Your task to perform on an android device: Go to Wikipedia Image 0: 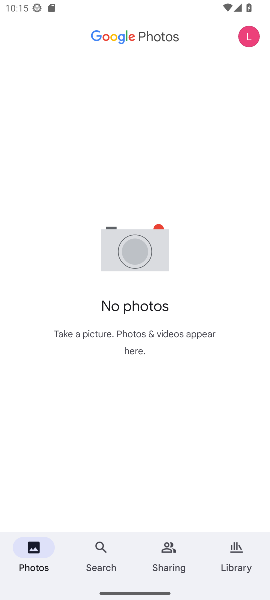
Step 0: press home button
Your task to perform on an android device: Go to Wikipedia Image 1: 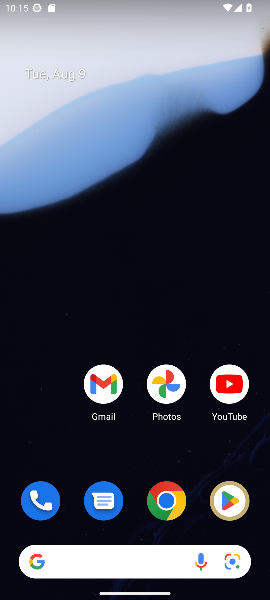
Step 1: click (169, 497)
Your task to perform on an android device: Go to Wikipedia Image 2: 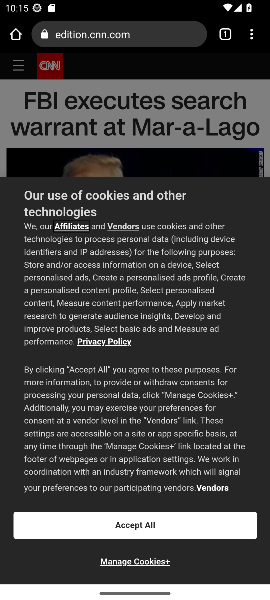
Step 2: press back button
Your task to perform on an android device: Go to Wikipedia Image 3: 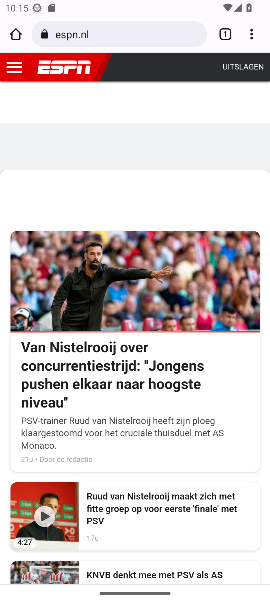
Step 3: press back button
Your task to perform on an android device: Go to Wikipedia Image 4: 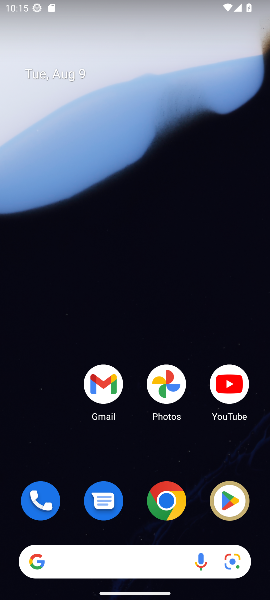
Step 4: click (163, 503)
Your task to perform on an android device: Go to Wikipedia Image 5: 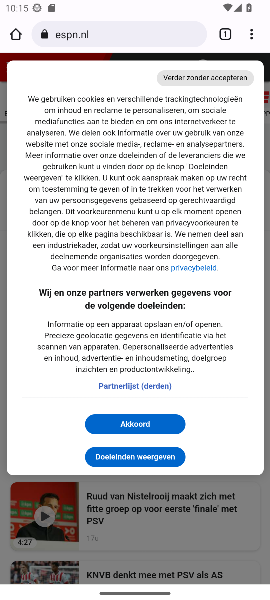
Step 5: click (72, 27)
Your task to perform on an android device: Go to Wikipedia Image 6: 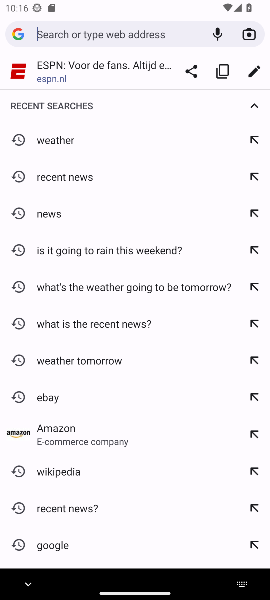
Step 6: type "Wikipedia"
Your task to perform on an android device: Go to Wikipedia Image 7: 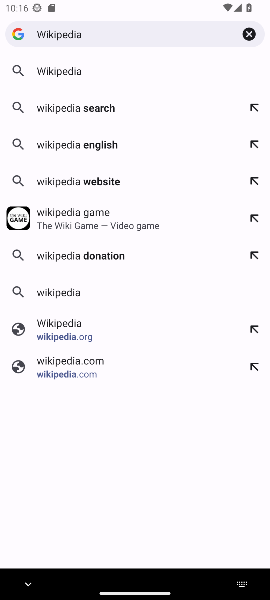
Step 7: click (64, 325)
Your task to perform on an android device: Go to Wikipedia Image 8: 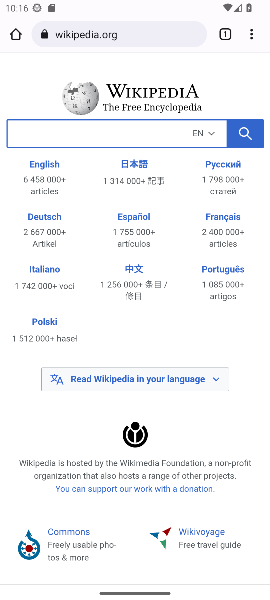
Step 8: task complete